Your task to perform on an android device: Go to settings Image 0: 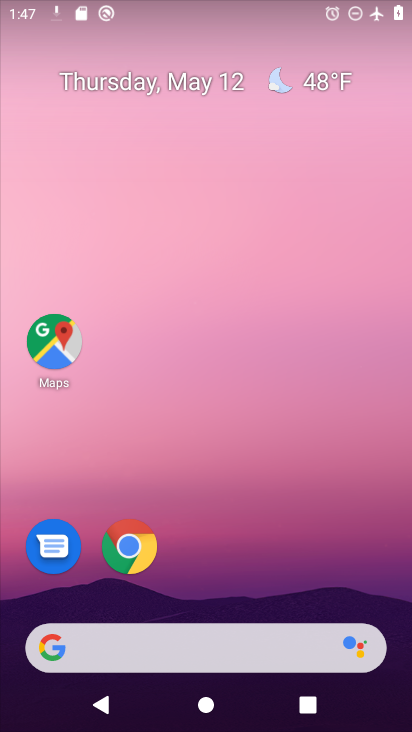
Step 0: drag from (222, 657) to (390, 126)
Your task to perform on an android device: Go to settings Image 1: 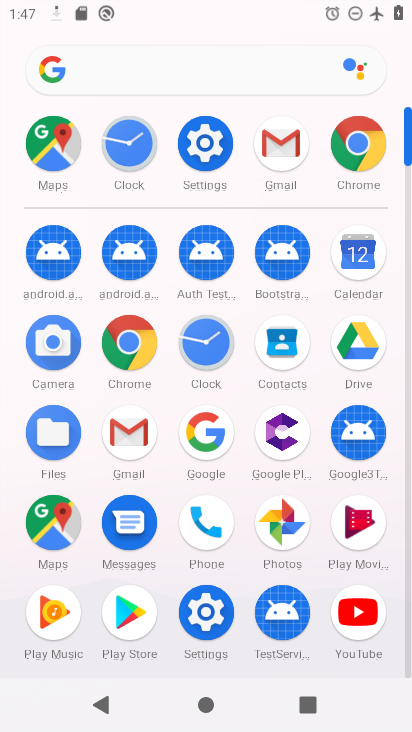
Step 1: click (206, 143)
Your task to perform on an android device: Go to settings Image 2: 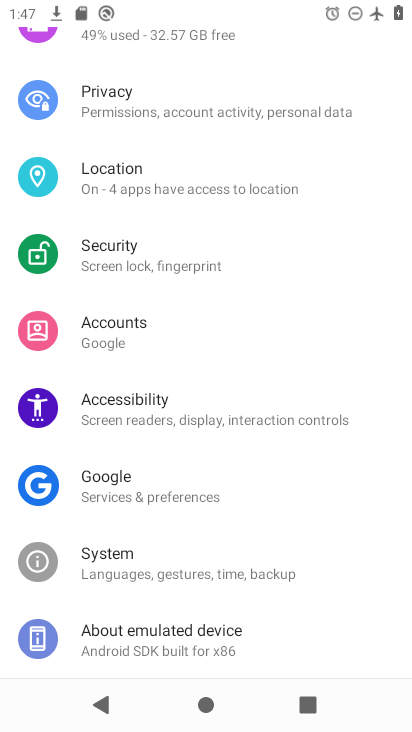
Step 2: task complete